Your task to perform on an android device: change your default location settings in chrome Image 0: 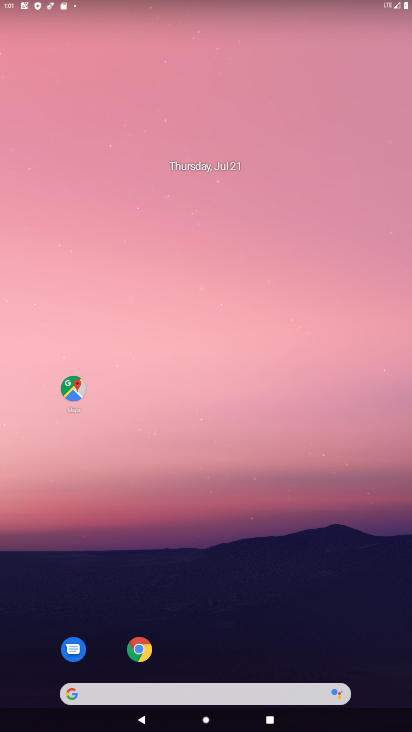
Step 0: click (137, 648)
Your task to perform on an android device: change your default location settings in chrome Image 1: 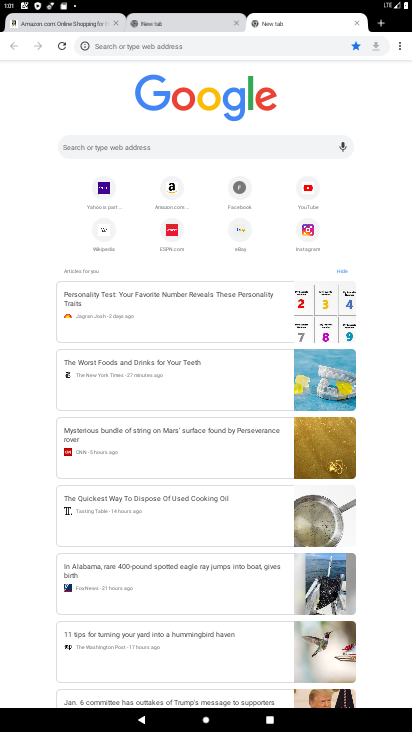
Step 1: click (393, 48)
Your task to perform on an android device: change your default location settings in chrome Image 2: 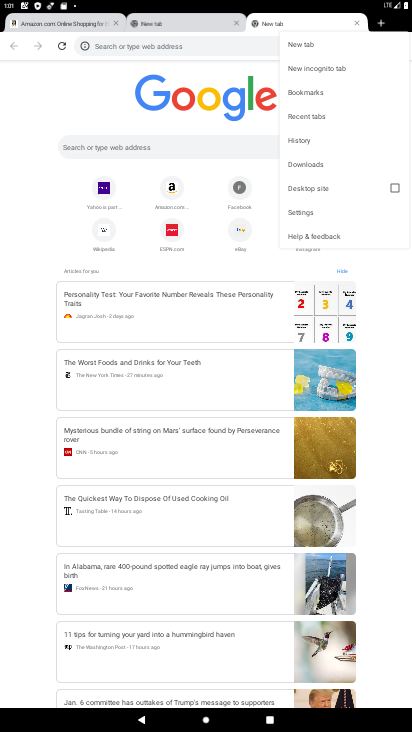
Step 2: click (297, 216)
Your task to perform on an android device: change your default location settings in chrome Image 3: 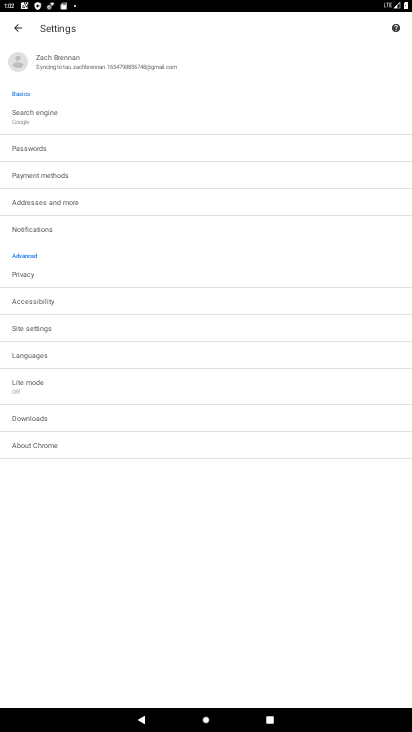
Step 3: click (22, 328)
Your task to perform on an android device: change your default location settings in chrome Image 4: 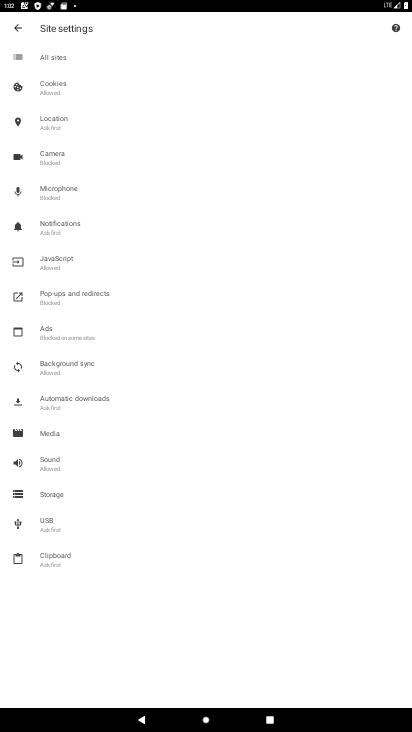
Step 4: click (50, 115)
Your task to perform on an android device: change your default location settings in chrome Image 5: 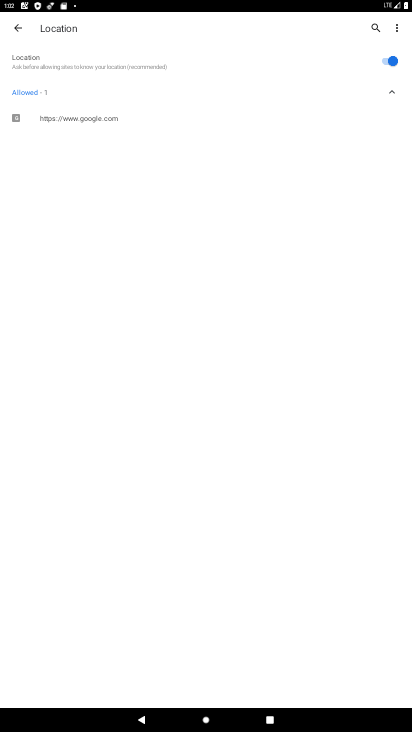
Step 5: task complete